Your task to perform on an android device: find which apps use the phone's location Image 0: 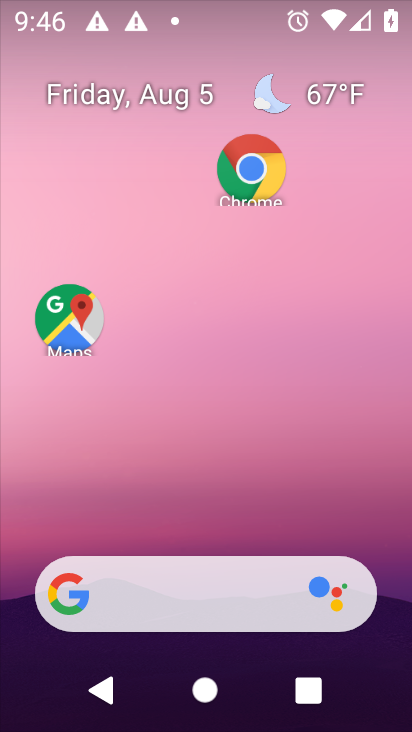
Step 0: drag from (194, 430) to (171, 124)
Your task to perform on an android device: find which apps use the phone's location Image 1: 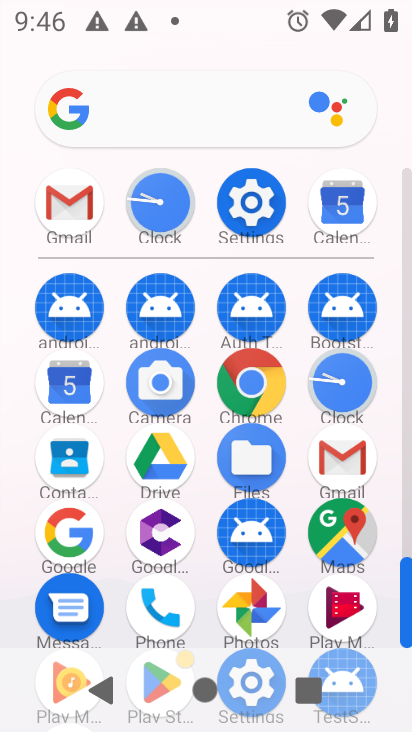
Step 1: click (245, 228)
Your task to perform on an android device: find which apps use the phone's location Image 2: 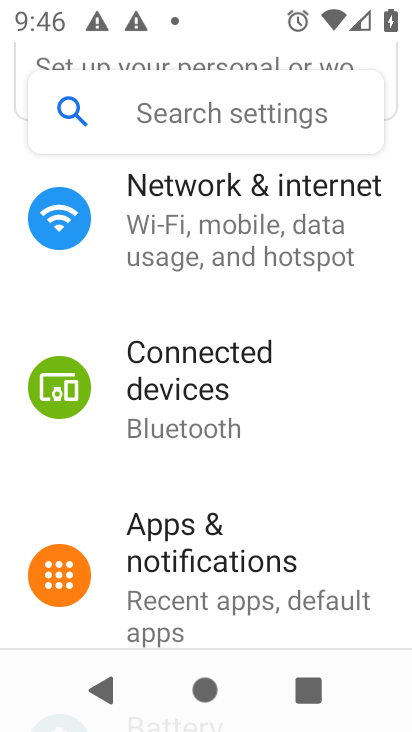
Step 2: drag from (244, 511) to (212, 179)
Your task to perform on an android device: find which apps use the phone's location Image 3: 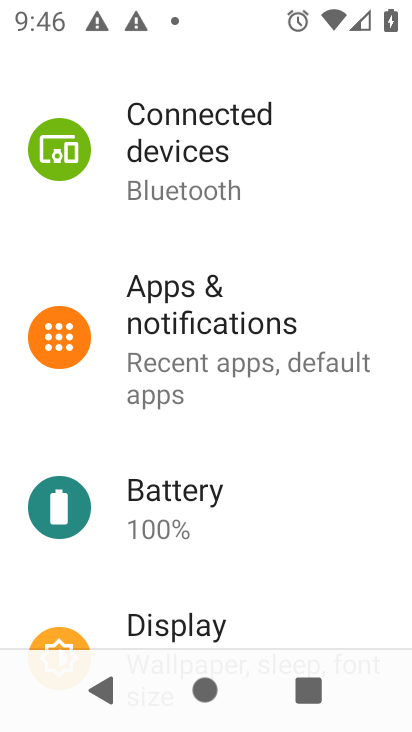
Step 3: drag from (222, 610) to (218, 262)
Your task to perform on an android device: find which apps use the phone's location Image 4: 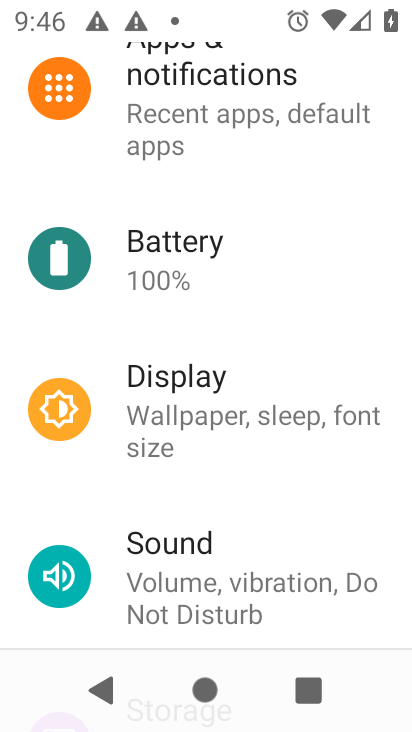
Step 4: drag from (233, 546) to (221, 166)
Your task to perform on an android device: find which apps use the phone's location Image 5: 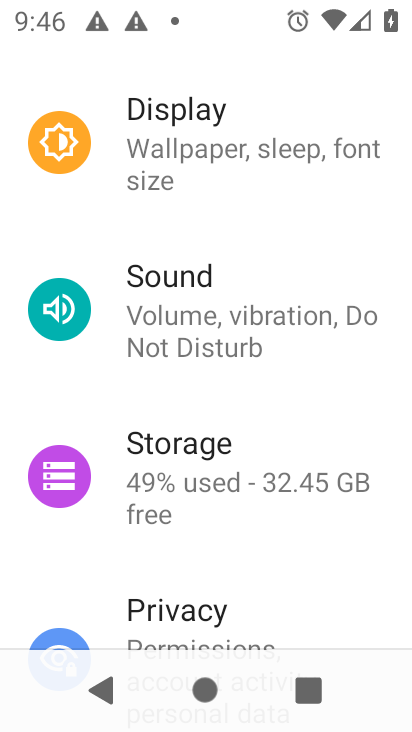
Step 5: drag from (230, 567) to (197, 203)
Your task to perform on an android device: find which apps use the phone's location Image 6: 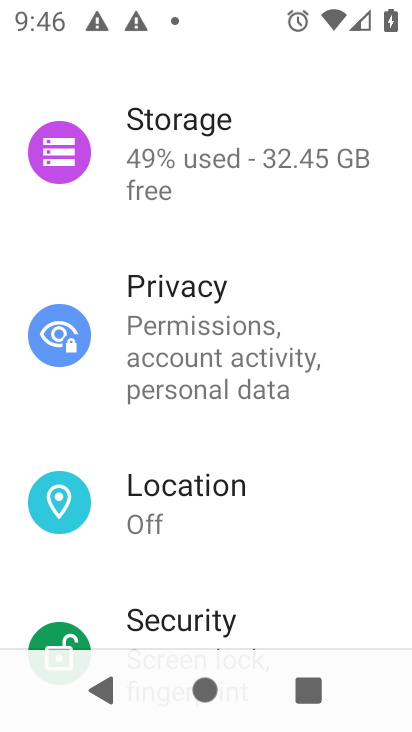
Step 6: click (227, 489)
Your task to perform on an android device: find which apps use the phone's location Image 7: 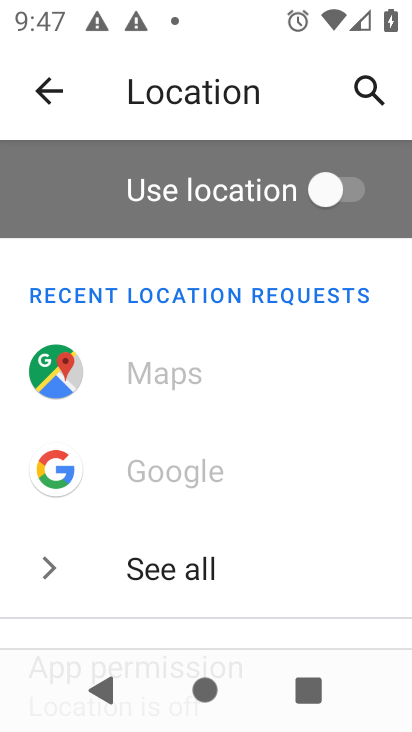
Step 7: drag from (224, 492) to (175, 145)
Your task to perform on an android device: find which apps use the phone's location Image 8: 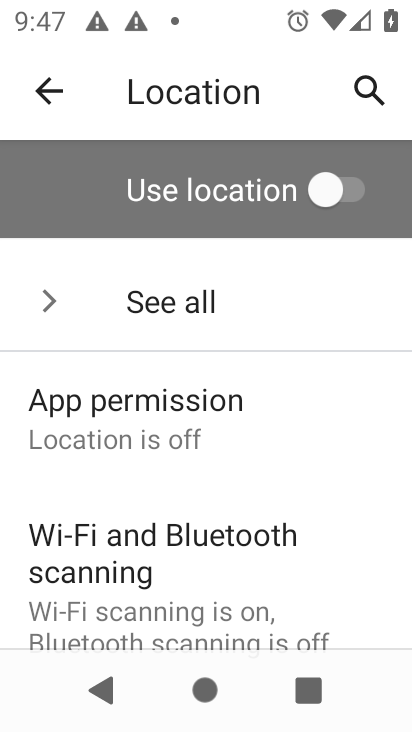
Step 8: click (197, 378)
Your task to perform on an android device: find which apps use the phone's location Image 9: 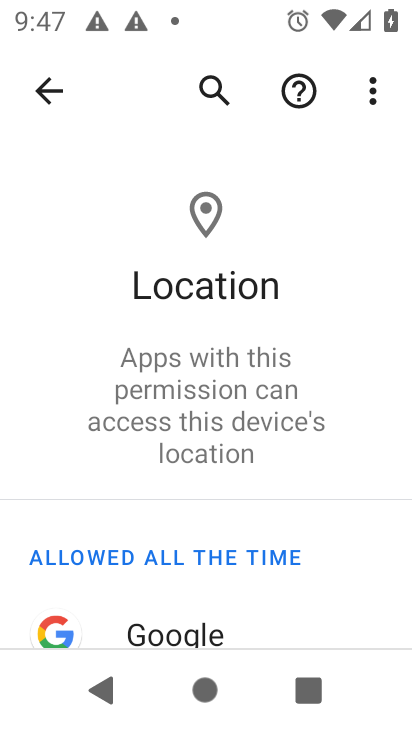
Step 9: task complete